Your task to perform on an android device: set an alarm Image 0: 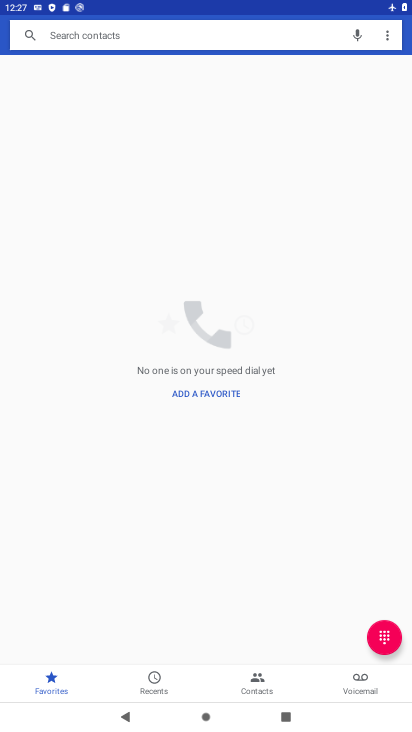
Step 0: drag from (215, 657) to (192, 24)
Your task to perform on an android device: set an alarm Image 1: 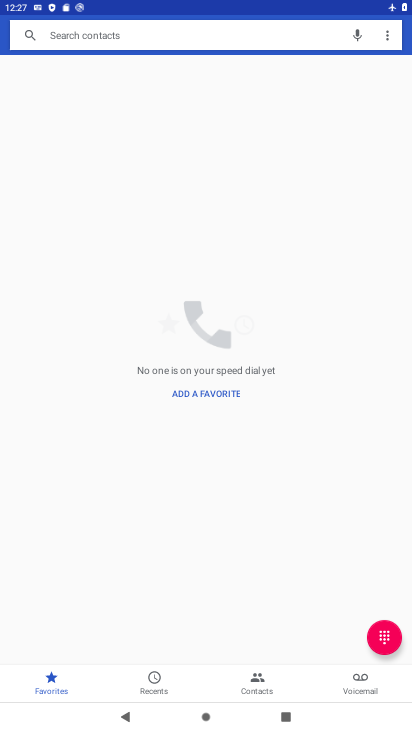
Step 1: press home button
Your task to perform on an android device: set an alarm Image 2: 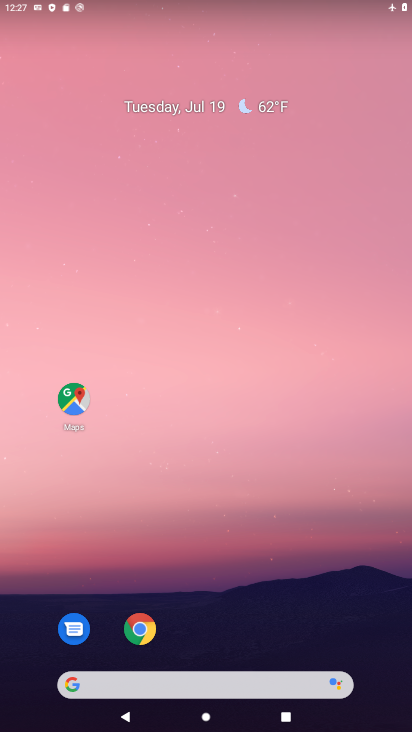
Step 2: drag from (212, 653) to (219, 87)
Your task to perform on an android device: set an alarm Image 3: 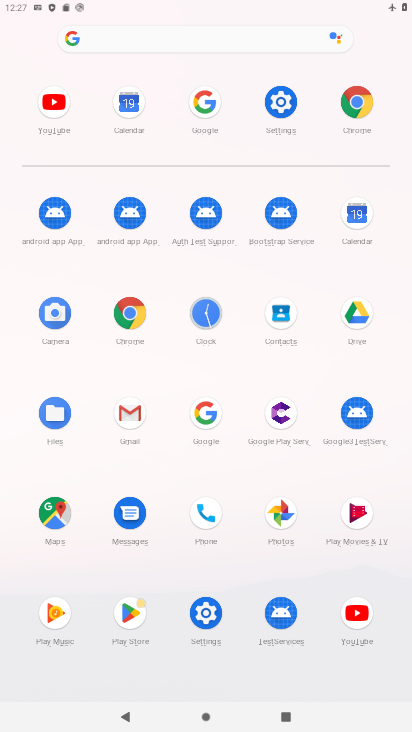
Step 3: click (204, 318)
Your task to perform on an android device: set an alarm Image 4: 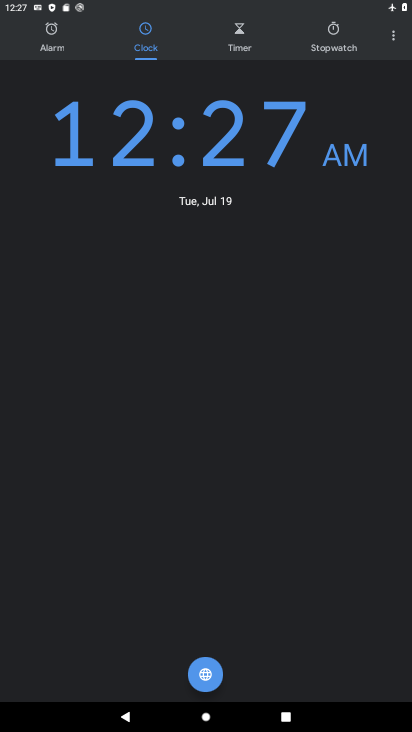
Step 4: click (54, 25)
Your task to perform on an android device: set an alarm Image 5: 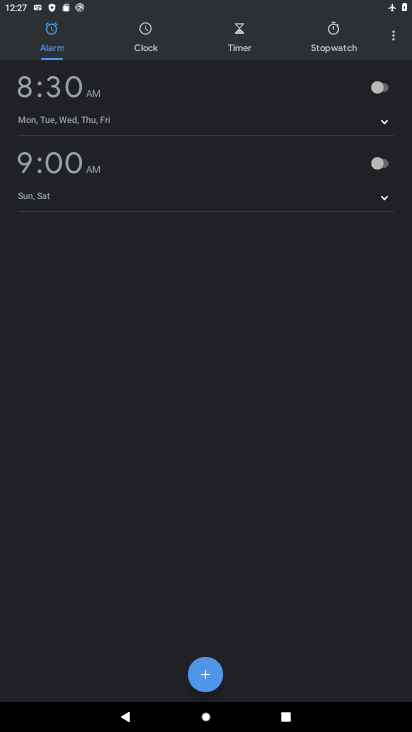
Step 5: click (214, 670)
Your task to perform on an android device: set an alarm Image 6: 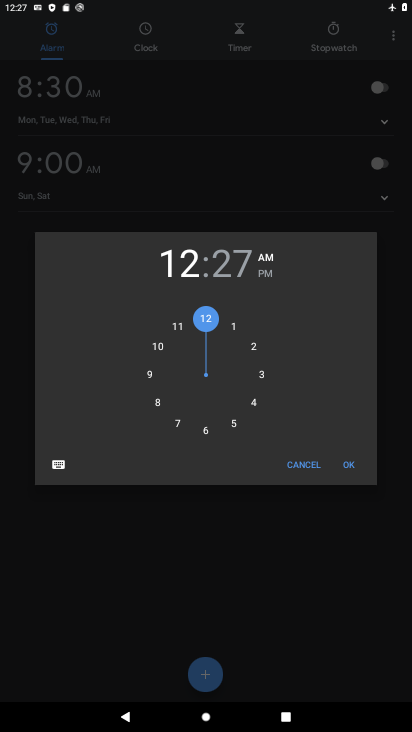
Step 6: click (345, 466)
Your task to perform on an android device: set an alarm Image 7: 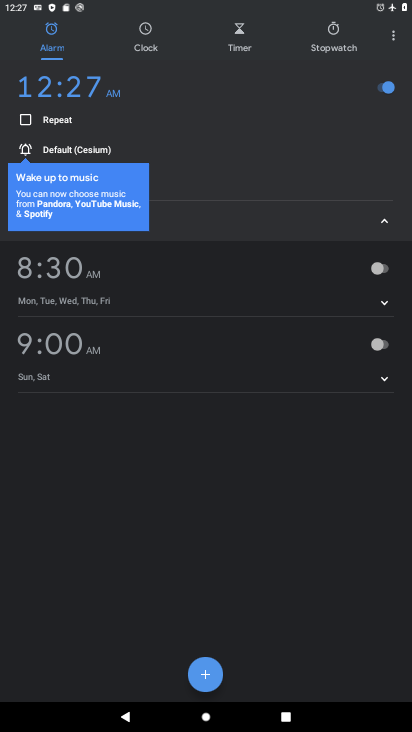
Step 7: task complete